Your task to perform on an android device: install app "Instagram" Image 0: 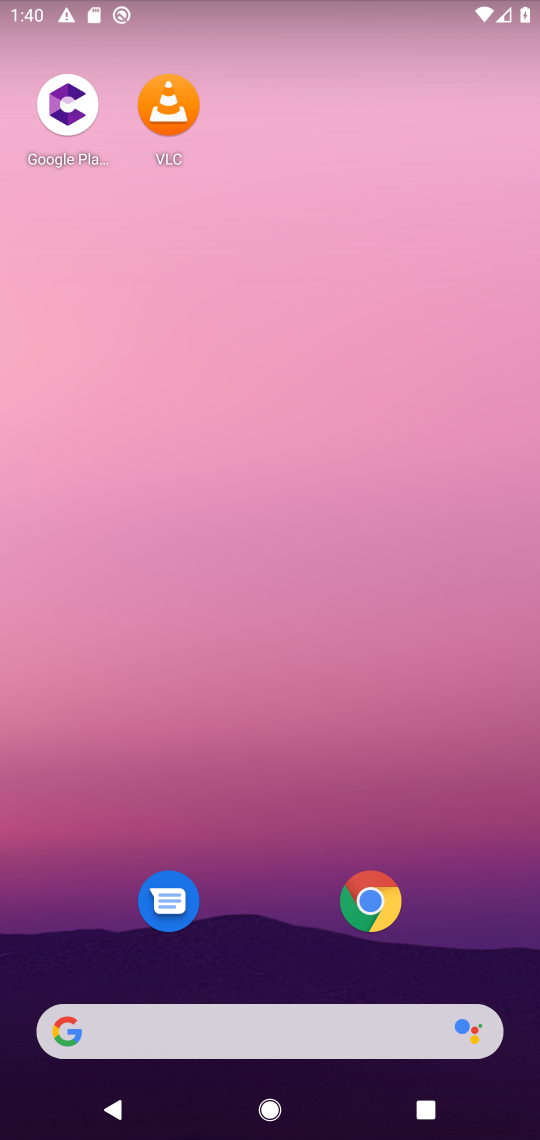
Step 0: drag from (481, 959) to (418, 140)
Your task to perform on an android device: install app "Instagram" Image 1: 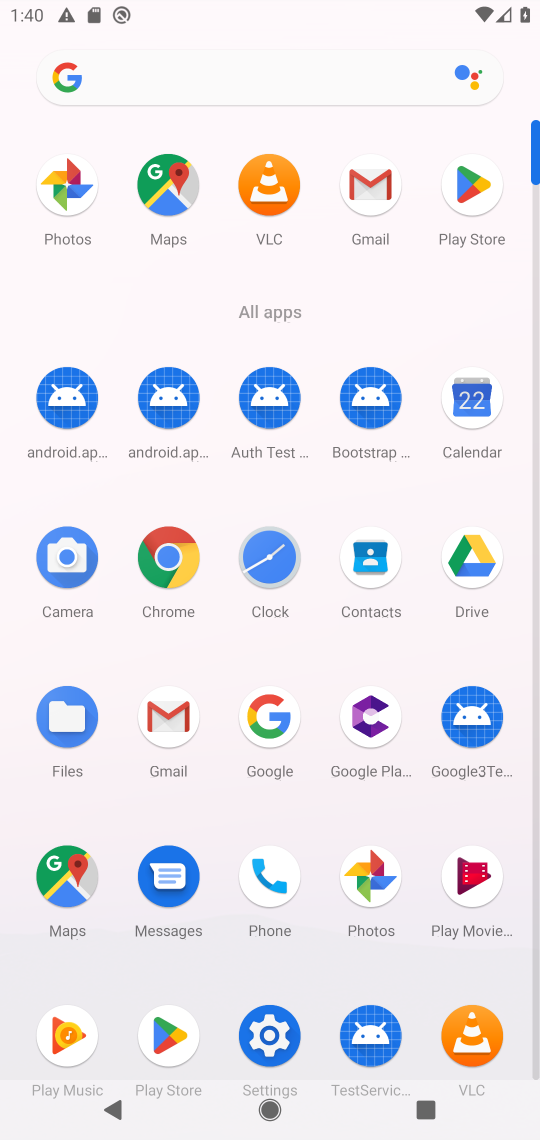
Step 1: click (172, 1039)
Your task to perform on an android device: install app "Instagram" Image 2: 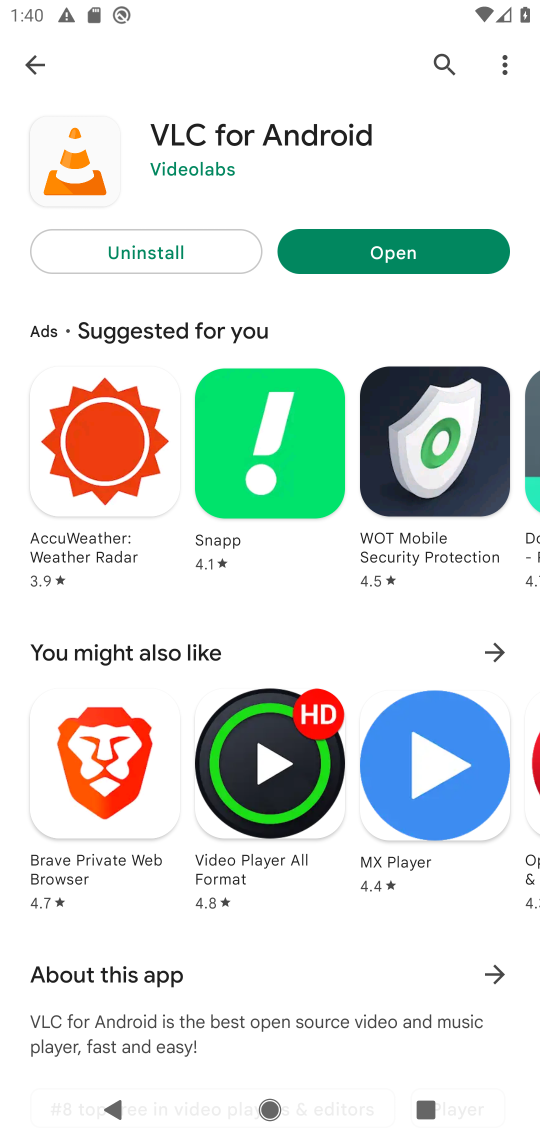
Step 2: click (441, 55)
Your task to perform on an android device: install app "Instagram" Image 3: 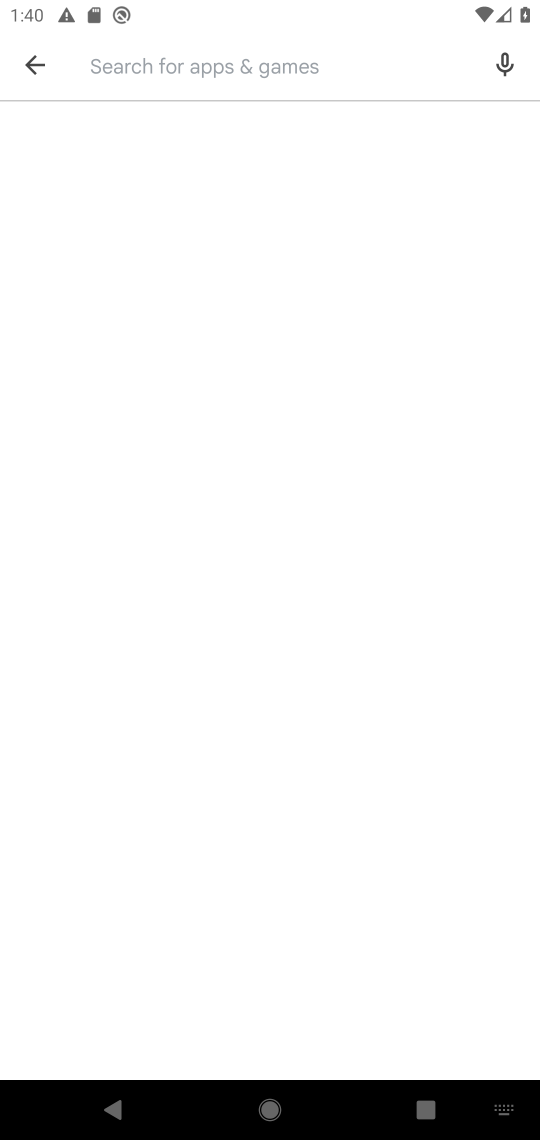
Step 3: type "Instagram"
Your task to perform on an android device: install app "Instagram" Image 4: 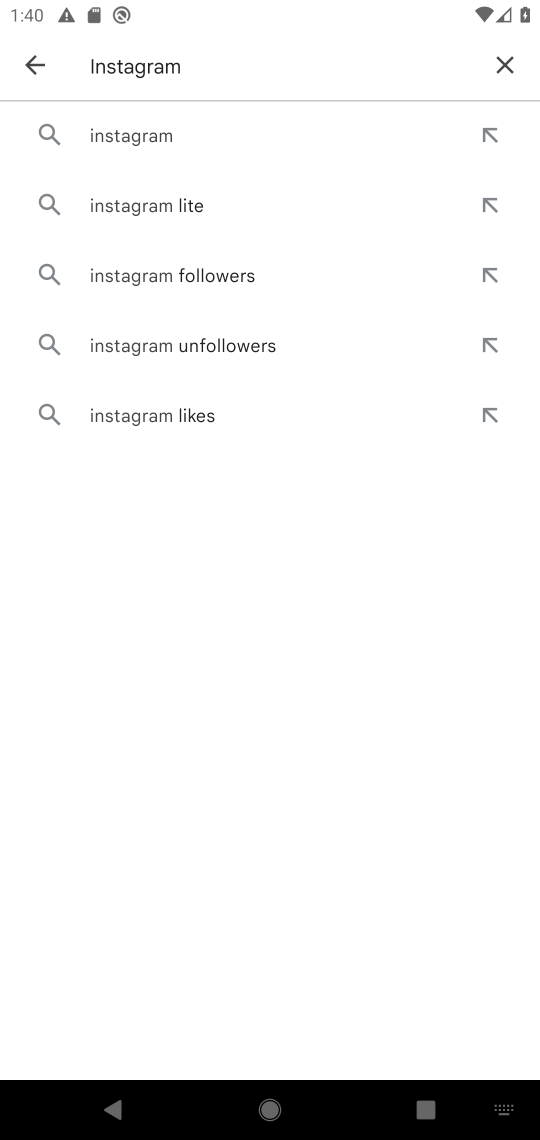
Step 4: click (115, 128)
Your task to perform on an android device: install app "Instagram" Image 5: 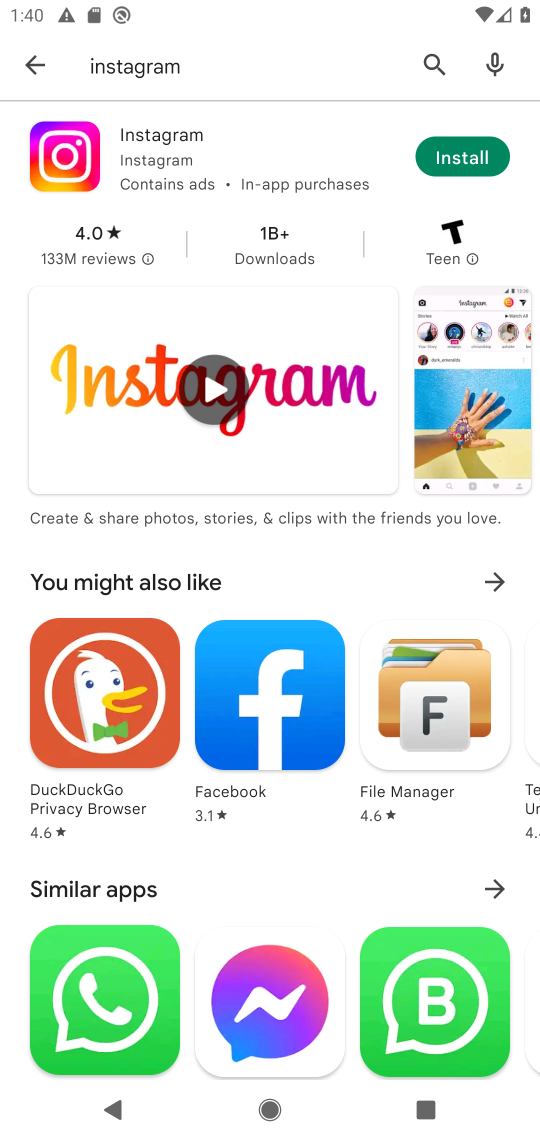
Step 5: click (129, 152)
Your task to perform on an android device: install app "Instagram" Image 6: 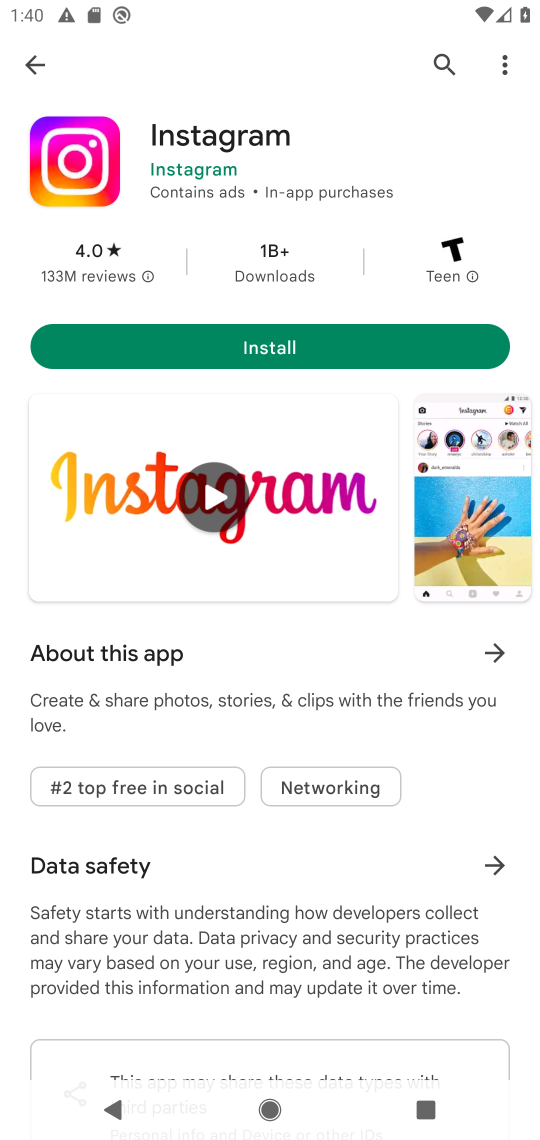
Step 6: click (265, 354)
Your task to perform on an android device: install app "Instagram" Image 7: 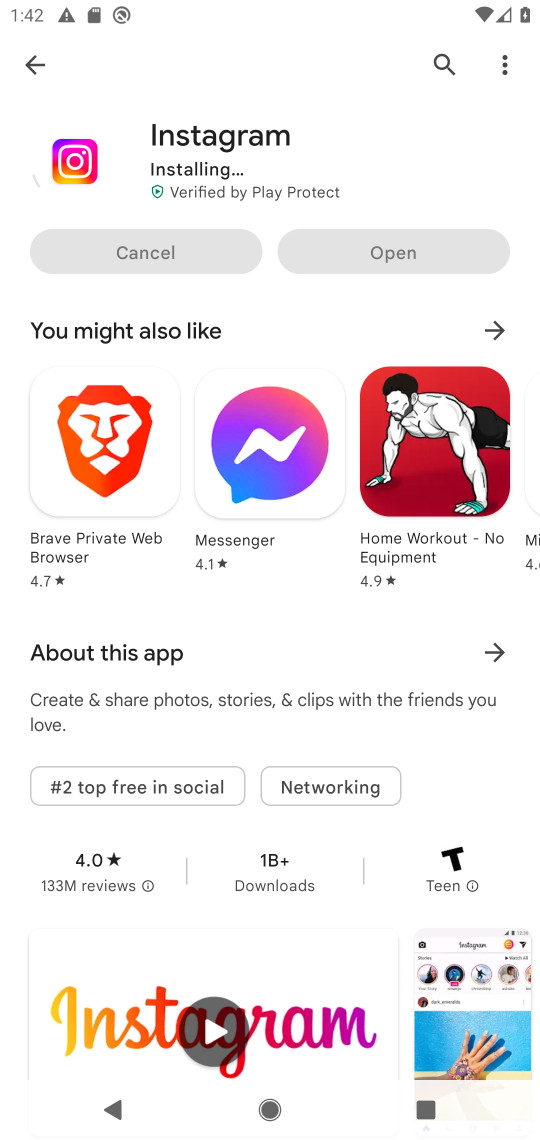
Step 7: drag from (242, 146) to (245, 388)
Your task to perform on an android device: install app "Instagram" Image 8: 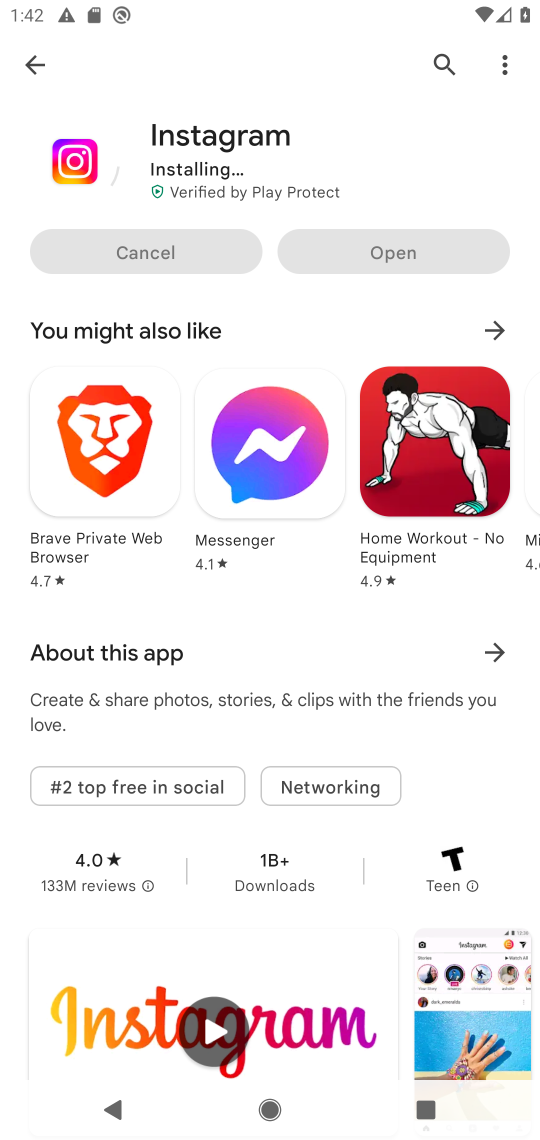
Step 8: click (181, 145)
Your task to perform on an android device: install app "Instagram" Image 9: 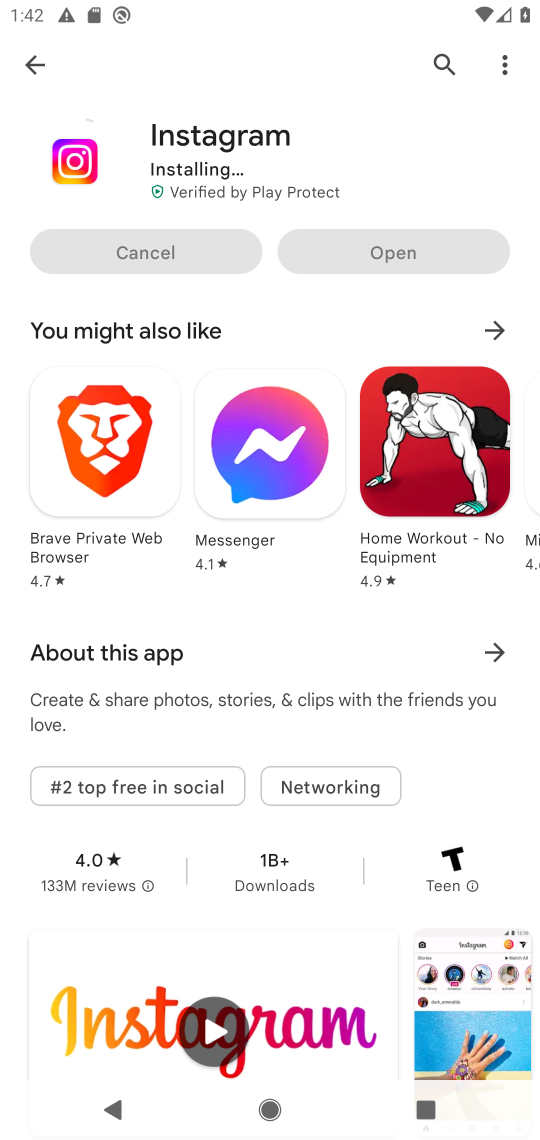
Step 9: drag from (267, 260) to (272, 404)
Your task to perform on an android device: install app "Instagram" Image 10: 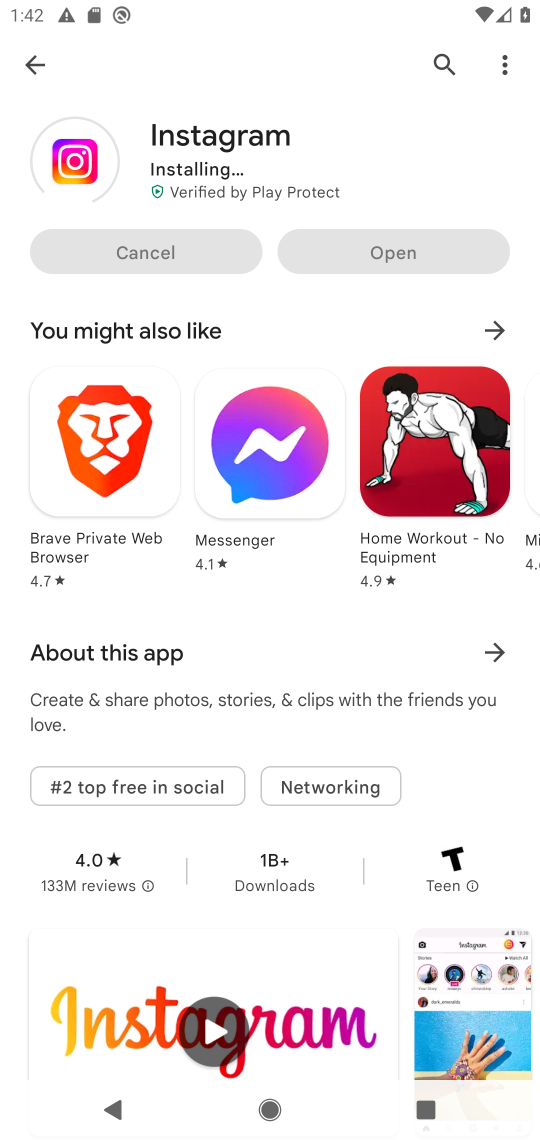
Step 10: click (137, 248)
Your task to perform on an android device: install app "Instagram" Image 11: 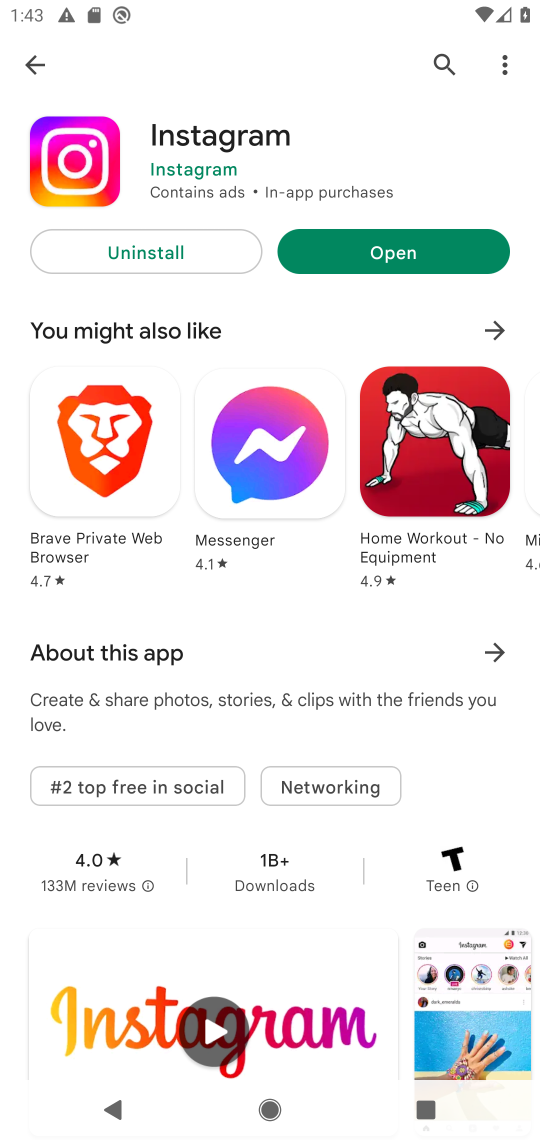
Step 11: task complete